Your task to perform on an android device: Go to accessibility settings Image 0: 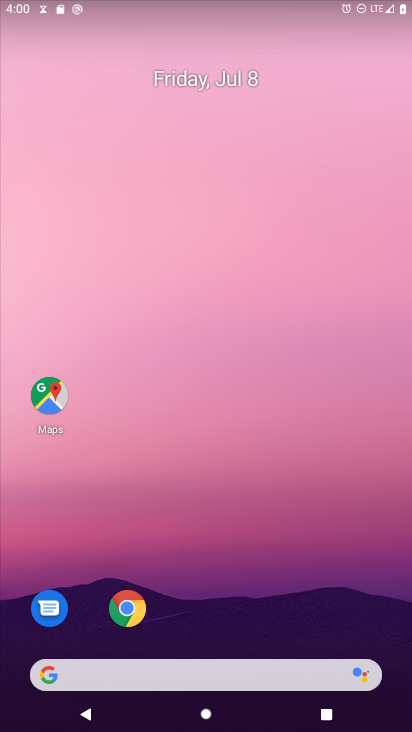
Step 0: drag from (191, 647) to (244, 26)
Your task to perform on an android device: Go to accessibility settings Image 1: 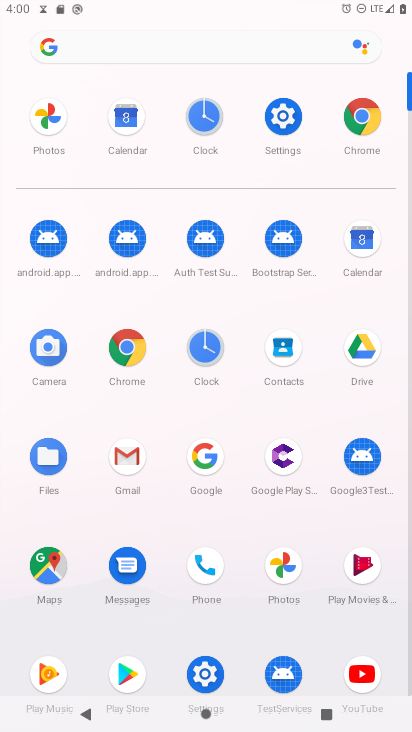
Step 1: click (285, 121)
Your task to perform on an android device: Go to accessibility settings Image 2: 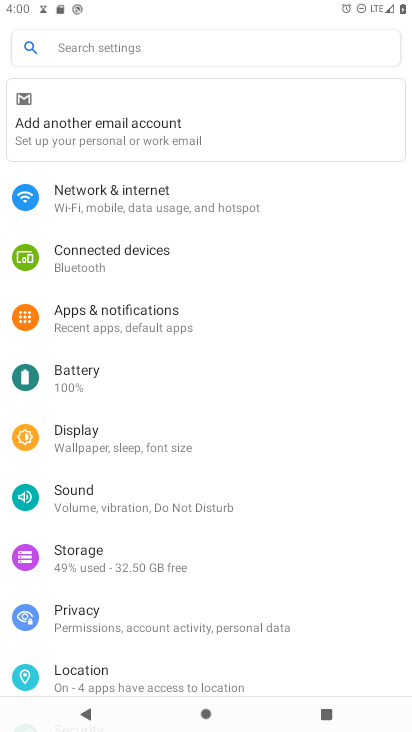
Step 2: drag from (105, 664) to (137, 172)
Your task to perform on an android device: Go to accessibility settings Image 3: 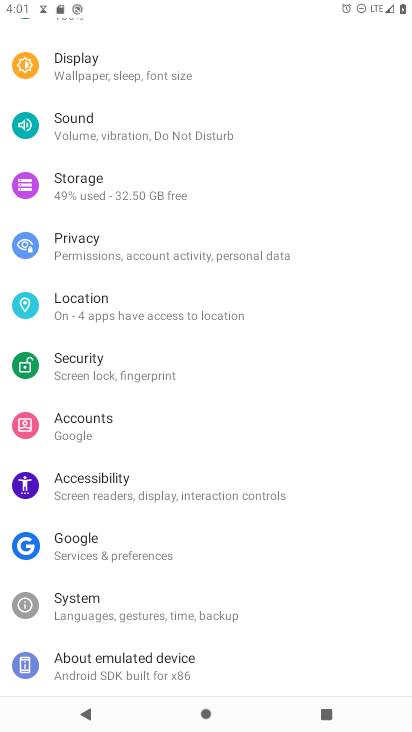
Step 3: click (154, 471)
Your task to perform on an android device: Go to accessibility settings Image 4: 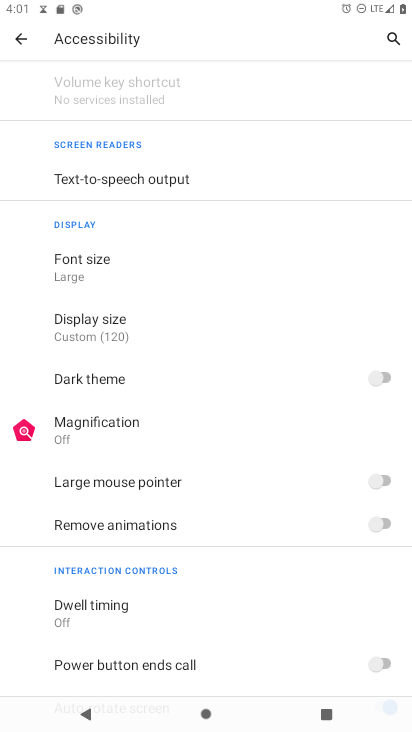
Step 4: task complete